Your task to perform on an android device: toggle javascript in the chrome app Image 0: 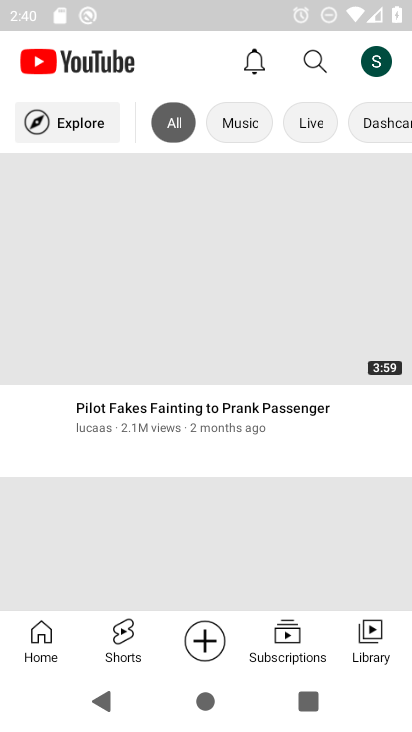
Step 0: press home button
Your task to perform on an android device: toggle javascript in the chrome app Image 1: 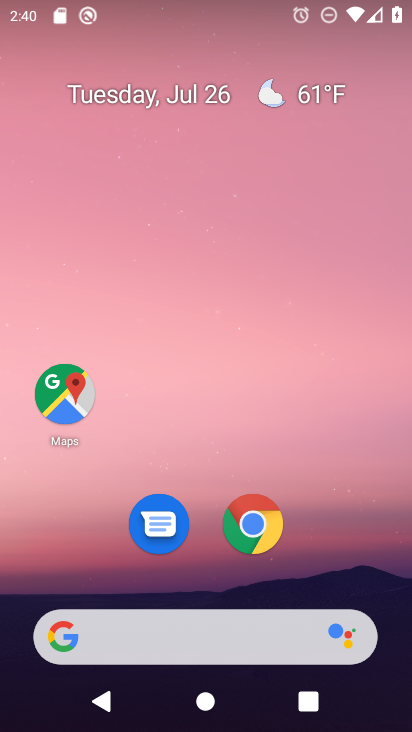
Step 1: click (251, 526)
Your task to perform on an android device: toggle javascript in the chrome app Image 2: 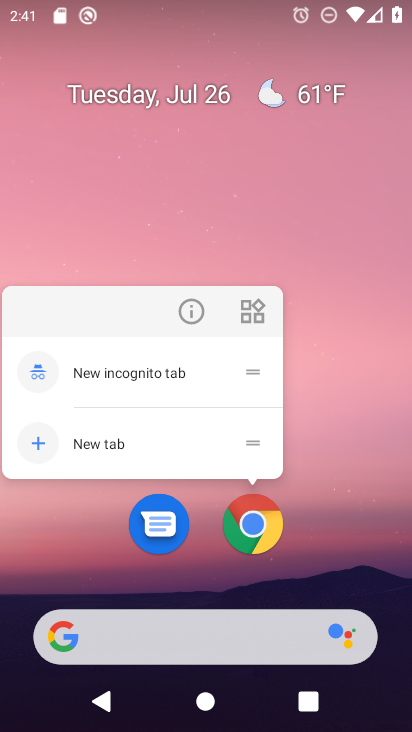
Step 2: click (263, 525)
Your task to perform on an android device: toggle javascript in the chrome app Image 3: 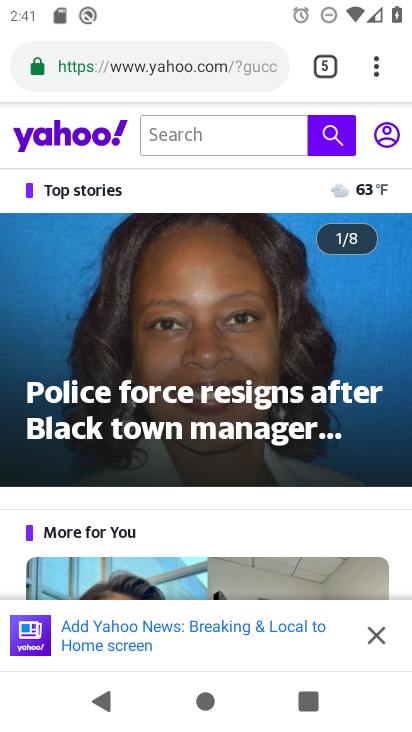
Step 3: drag from (373, 71) to (234, 511)
Your task to perform on an android device: toggle javascript in the chrome app Image 4: 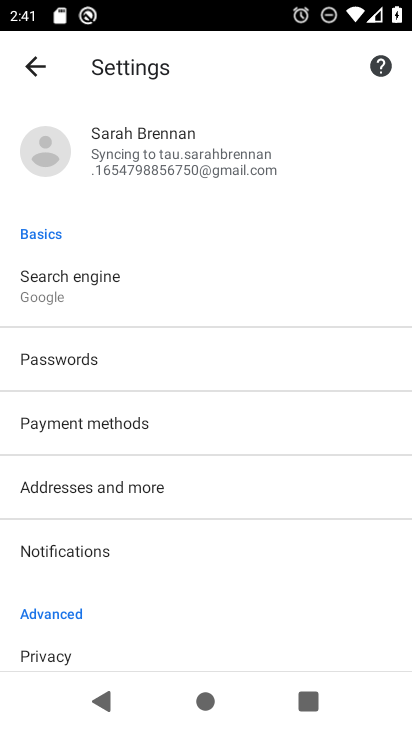
Step 4: drag from (159, 586) to (347, 142)
Your task to perform on an android device: toggle javascript in the chrome app Image 5: 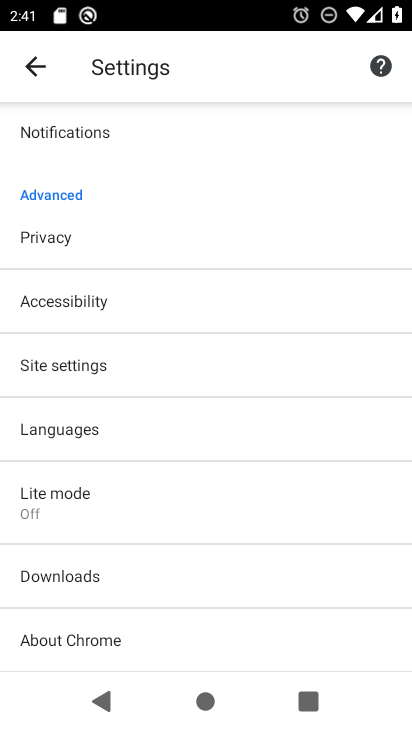
Step 5: click (94, 373)
Your task to perform on an android device: toggle javascript in the chrome app Image 6: 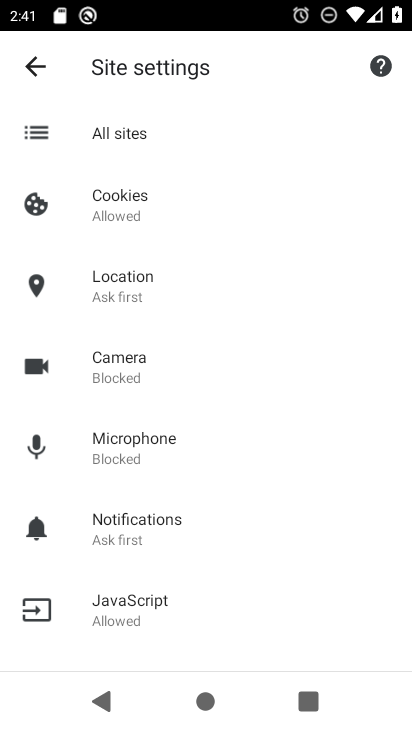
Step 6: click (149, 607)
Your task to perform on an android device: toggle javascript in the chrome app Image 7: 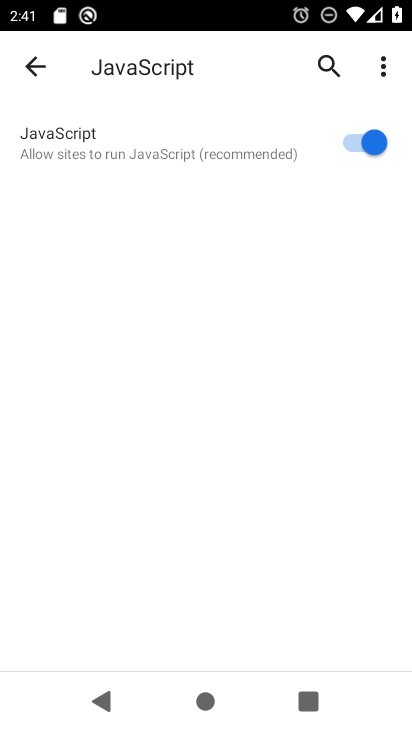
Step 7: click (353, 148)
Your task to perform on an android device: toggle javascript in the chrome app Image 8: 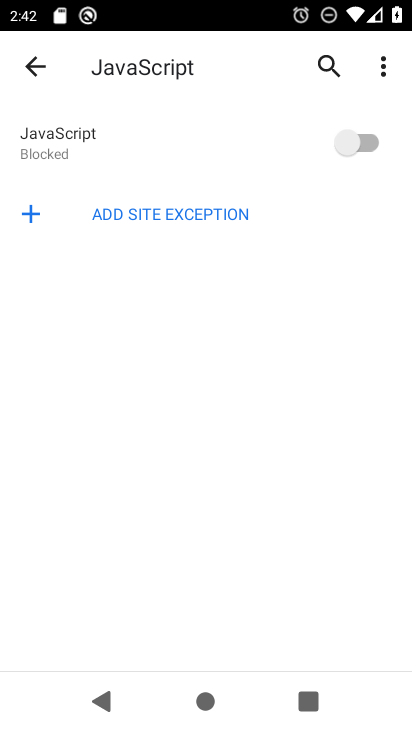
Step 8: task complete